Your task to perform on an android device: turn off location Image 0: 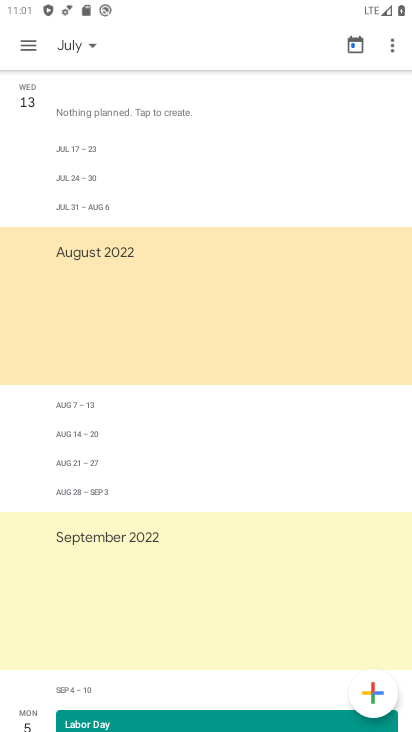
Step 0: press home button
Your task to perform on an android device: turn off location Image 1: 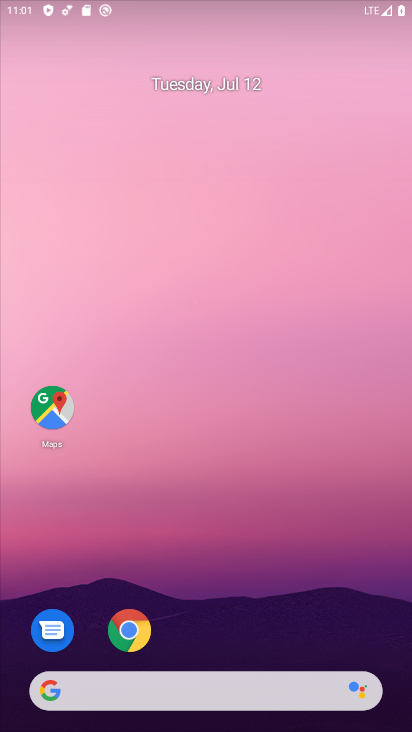
Step 1: drag from (396, 681) to (166, 93)
Your task to perform on an android device: turn off location Image 2: 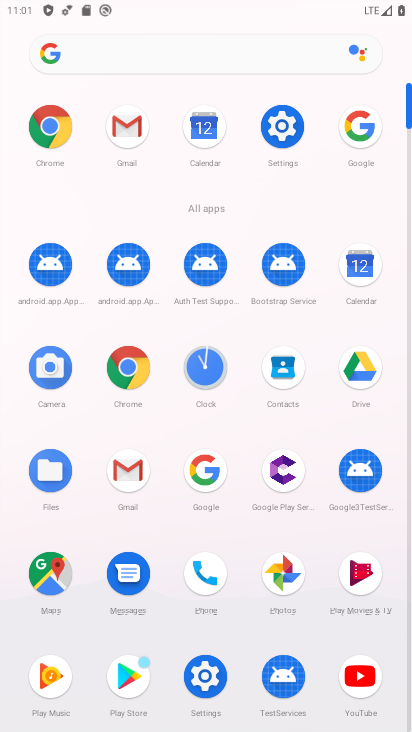
Step 2: click (288, 126)
Your task to perform on an android device: turn off location Image 3: 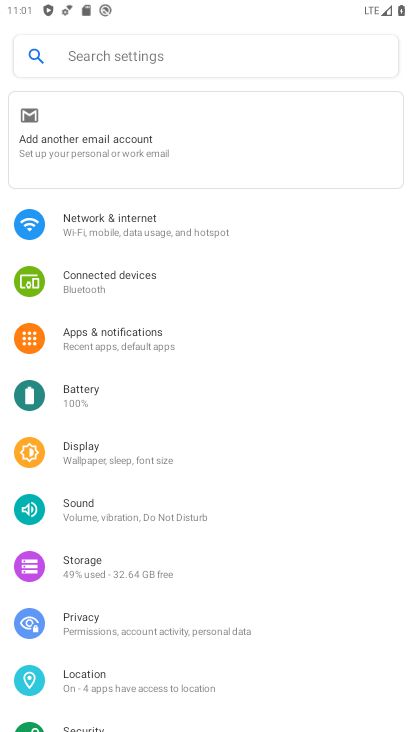
Step 3: click (92, 670)
Your task to perform on an android device: turn off location Image 4: 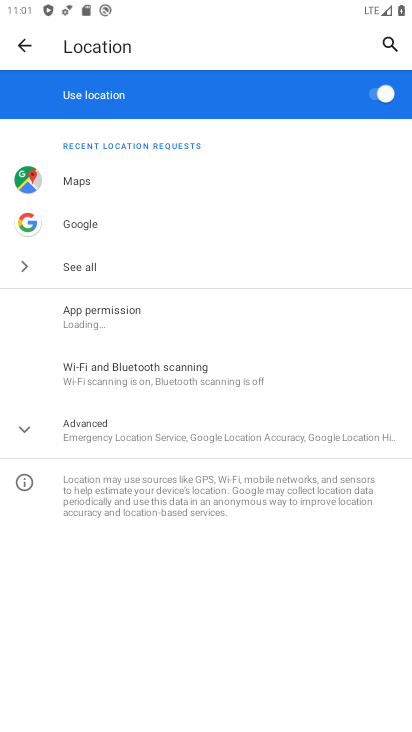
Step 4: click (324, 96)
Your task to perform on an android device: turn off location Image 5: 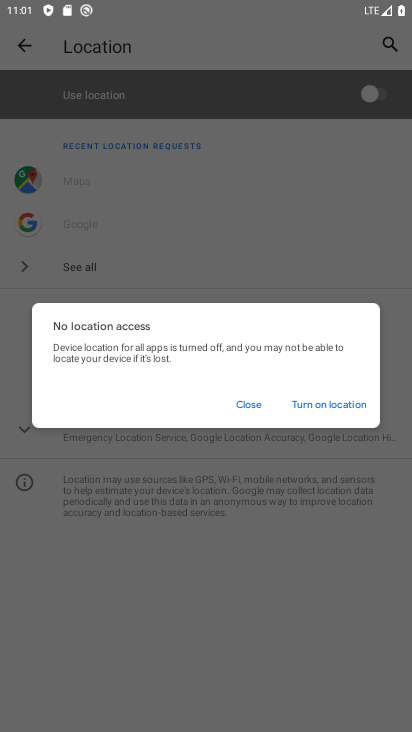
Step 5: task complete